Your task to perform on an android device: move an email to a new category in the gmail app Image 0: 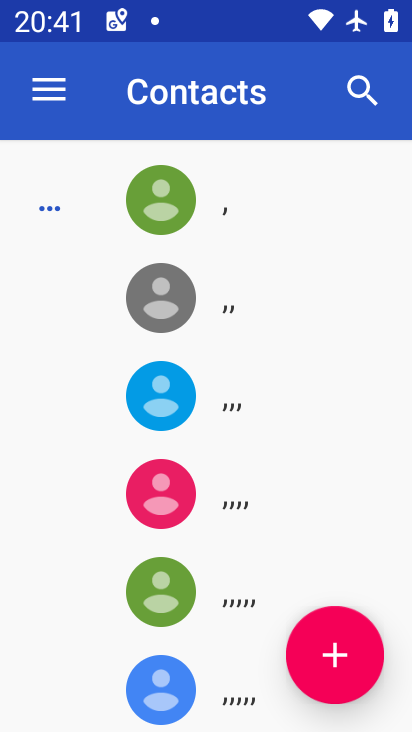
Step 0: press back button
Your task to perform on an android device: move an email to a new category in the gmail app Image 1: 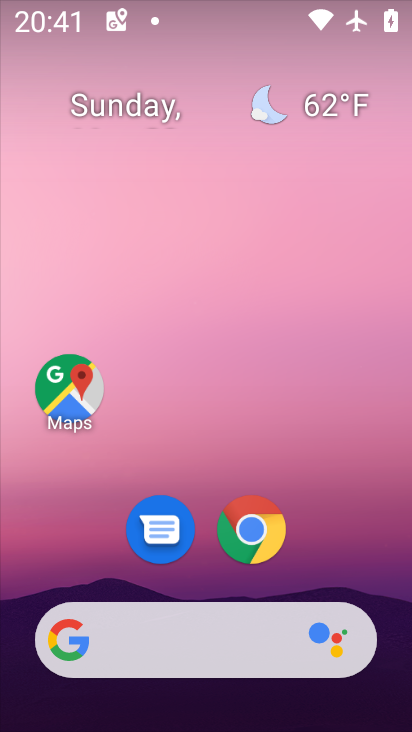
Step 1: drag from (254, 686) to (256, 229)
Your task to perform on an android device: move an email to a new category in the gmail app Image 2: 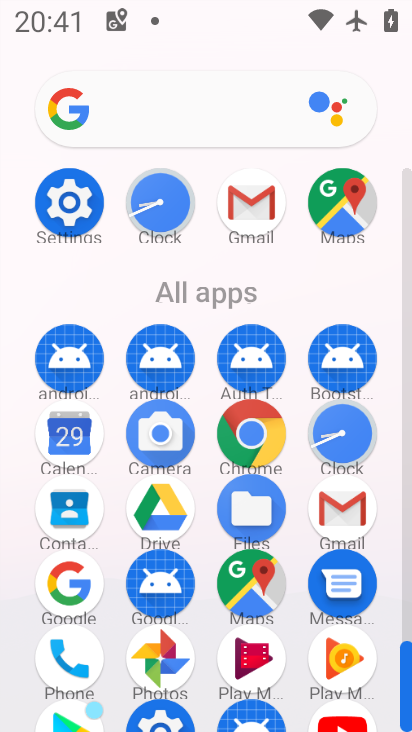
Step 2: click (345, 500)
Your task to perform on an android device: move an email to a new category in the gmail app Image 3: 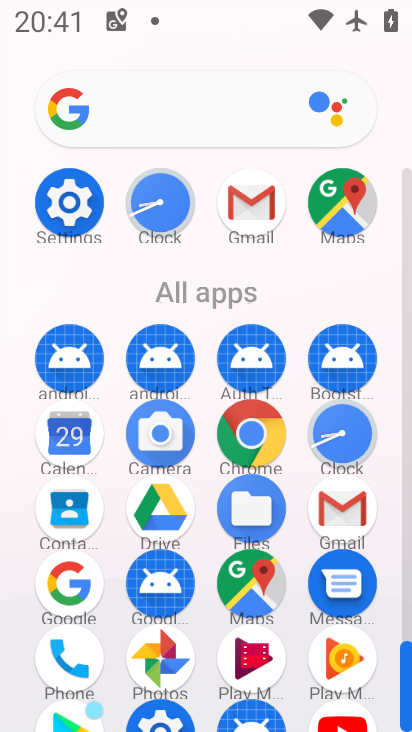
Step 3: click (345, 500)
Your task to perform on an android device: move an email to a new category in the gmail app Image 4: 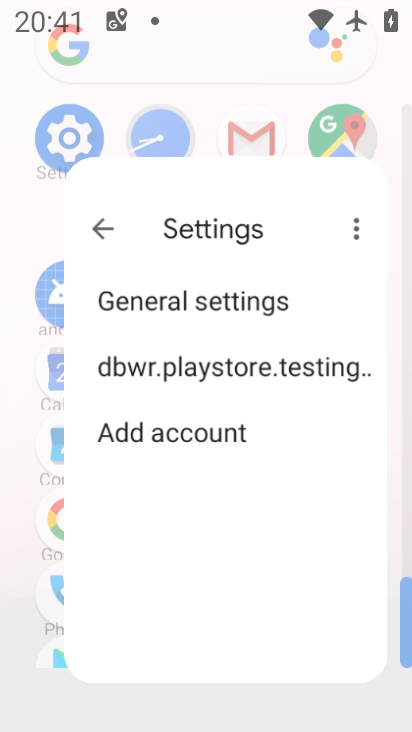
Step 4: click (340, 512)
Your task to perform on an android device: move an email to a new category in the gmail app Image 5: 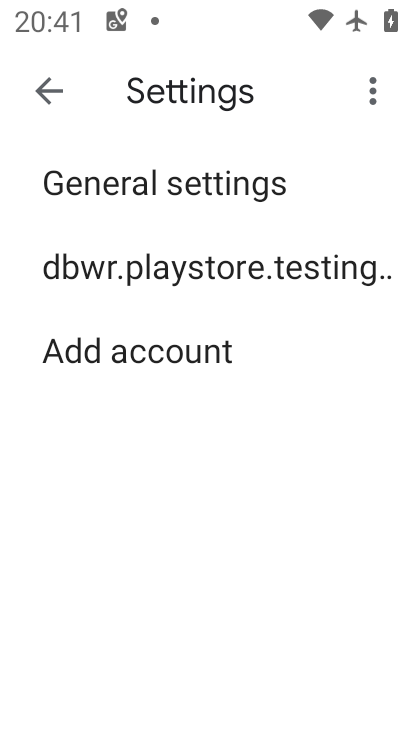
Step 5: click (194, 270)
Your task to perform on an android device: move an email to a new category in the gmail app Image 6: 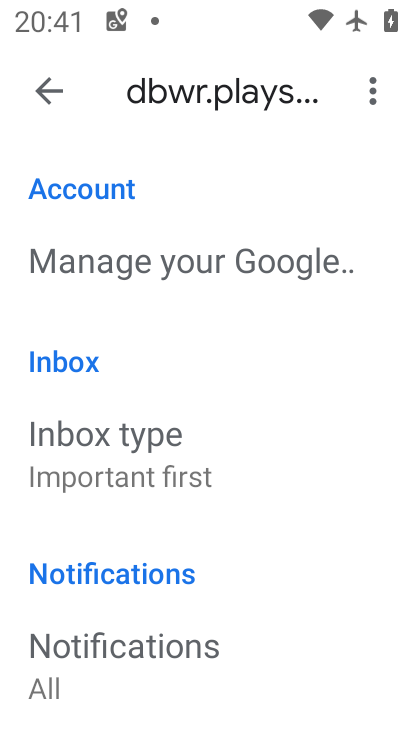
Step 6: click (36, 85)
Your task to perform on an android device: move an email to a new category in the gmail app Image 7: 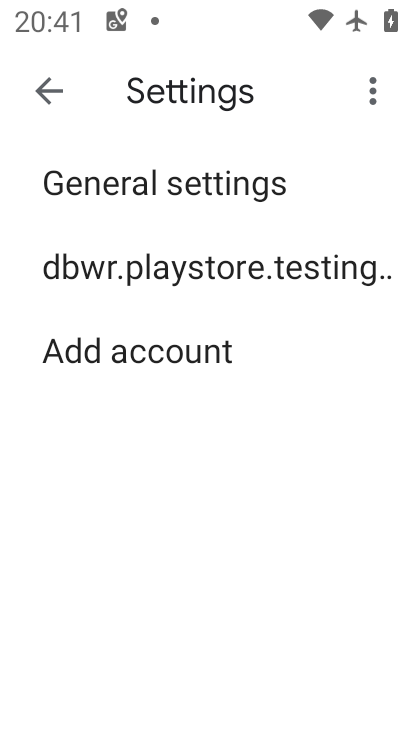
Step 7: click (46, 92)
Your task to perform on an android device: move an email to a new category in the gmail app Image 8: 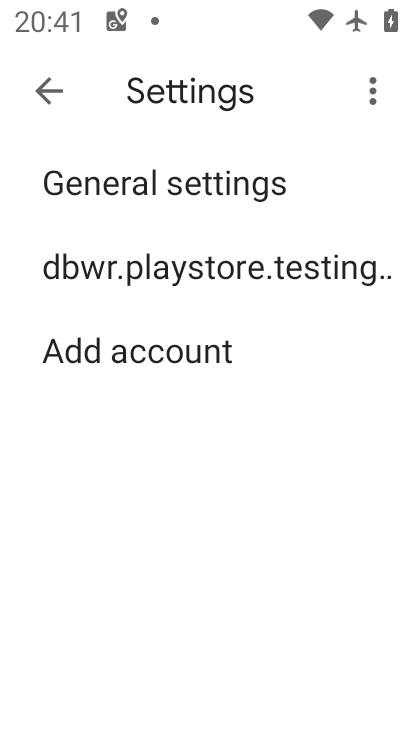
Step 8: click (35, 92)
Your task to perform on an android device: move an email to a new category in the gmail app Image 9: 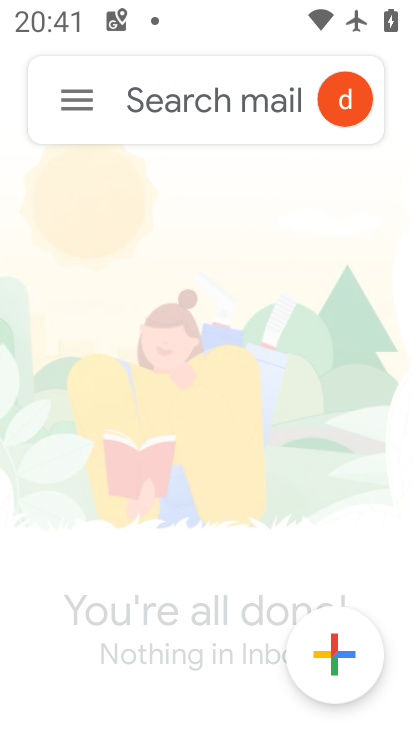
Step 9: click (88, 101)
Your task to perform on an android device: move an email to a new category in the gmail app Image 10: 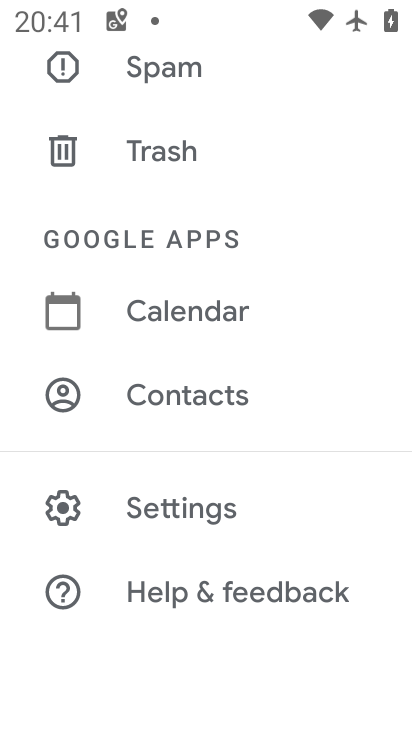
Step 10: drag from (150, 130) to (200, 538)
Your task to perform on an android device: move an email to a new category in the gmail app Image 11: 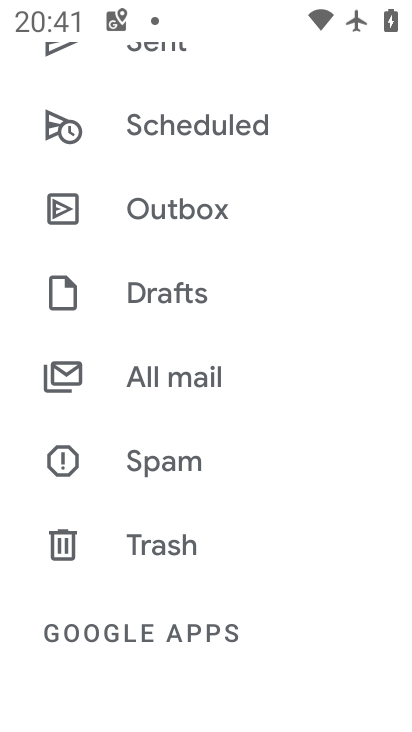
Step 11: drag from (190, 249) to (193, 582)
Your task to perform on an android device: move an email to a new category in the gmail app Image 12: 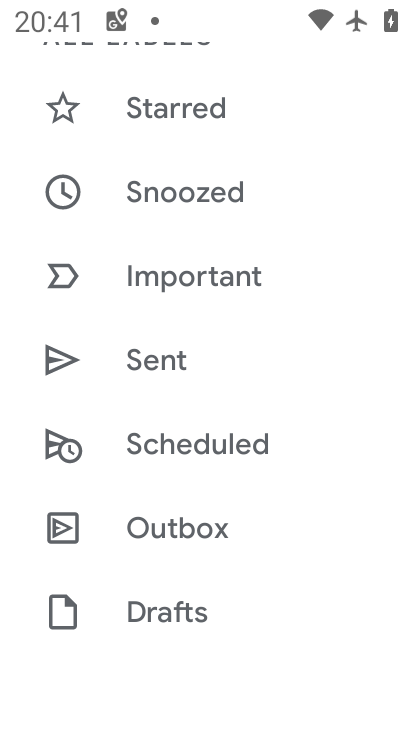
Step 12: drag from (180, 161) to (227, 655)
Your task to perform on an android device: move an email to a new category in the gmail app Image 13: 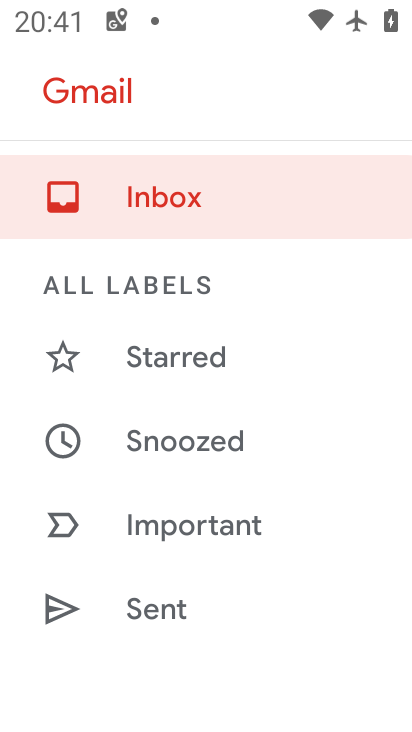
Step 13: drag from (190, 300) to (190, 534)
Your task to perform on an android device: move an email to a new category in the gmail app Image 14: 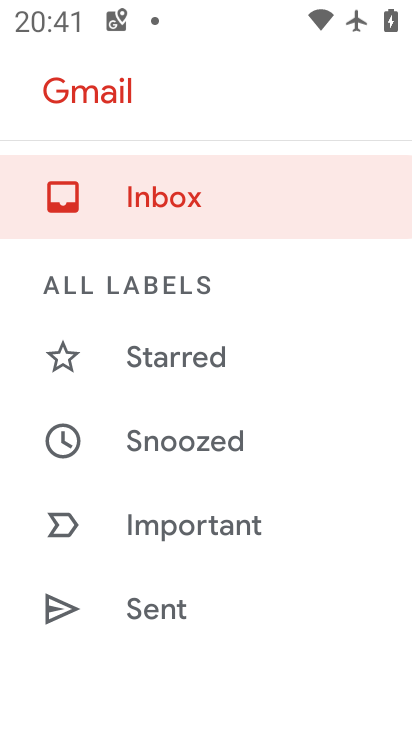
Step 14: drag from (141, 359) to (124, 218)
Your task to perform on an android device: move an email to a new category in the gmail app Image 15: 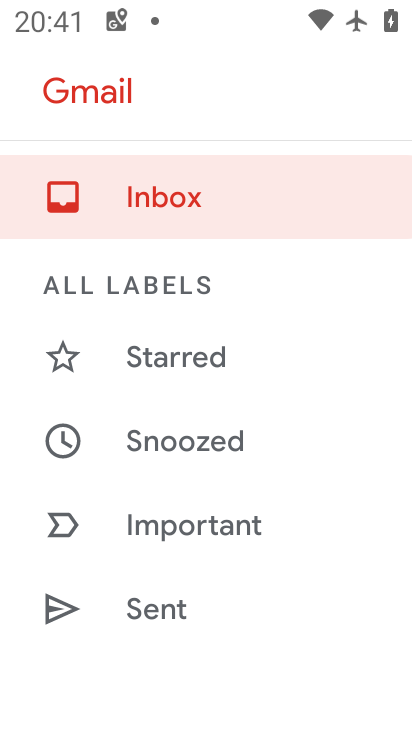
Step 15: drag from (167, 486) to (136, 215)
Your task to perform on an android device: move an email to a new category in the gmail app Image 16: 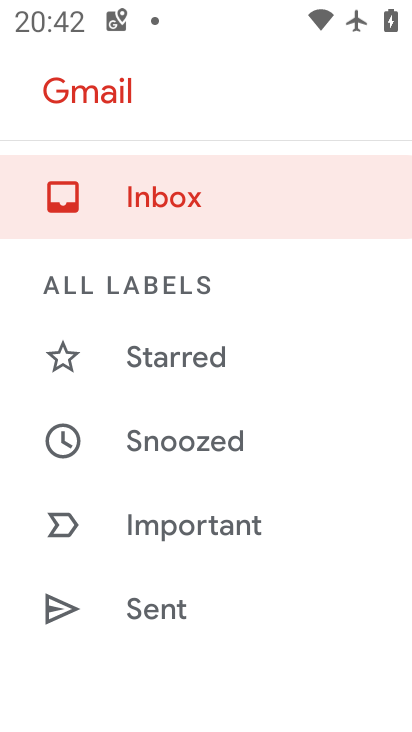
Step 16: drag from (167, 388) to (167, 166)
Your task to perform on an android device: move an email to a new category in the gmail app Image 17: 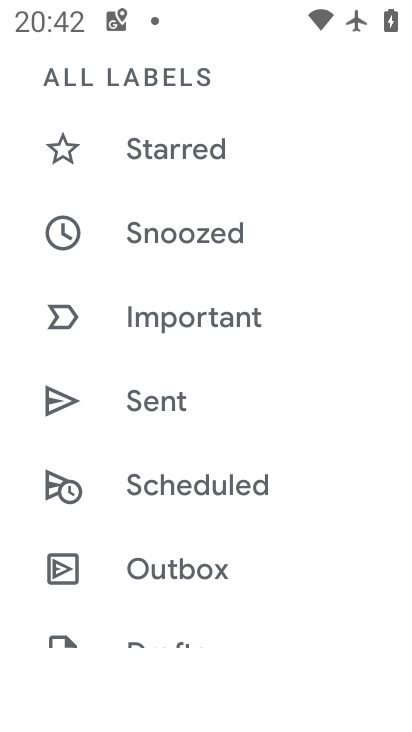
Step 17: drag from (167, 371) to (167, 160)
Your task to perform on an android device: move an email to a new category in the gmail app Image 18: 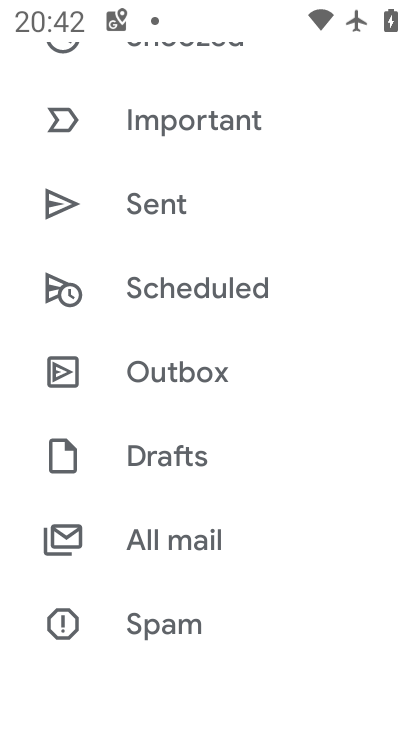
Step 18: drag from (183, 543) to (181, 242)
Your task to perform on an android device: move an email to a new category in the gmail app Image 19: 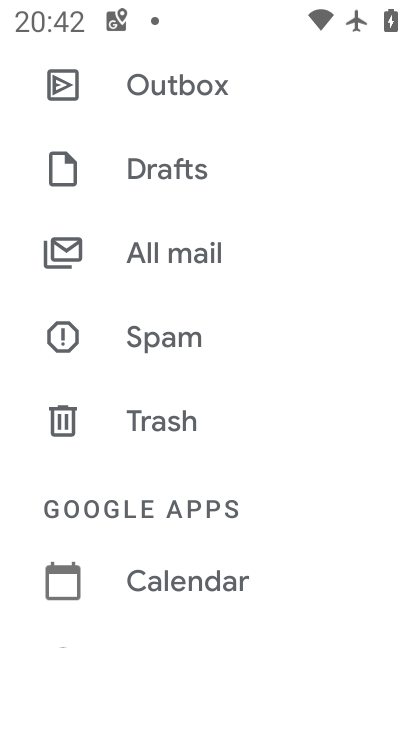
Step 19: click (173, 250)
Your task to perform on an android device: move an email to a new category in the gmail app Image 20: 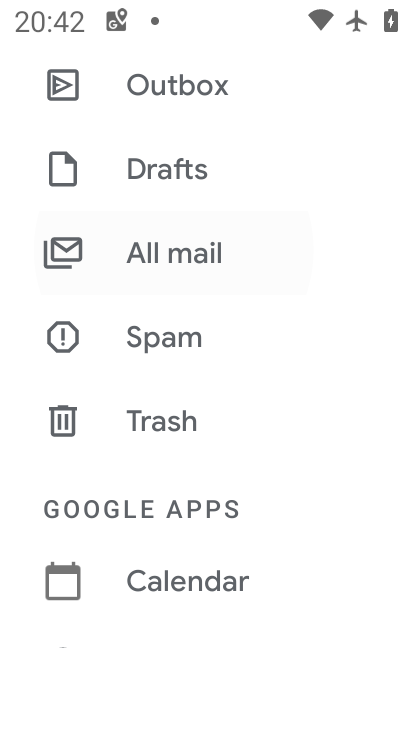
Step 20: click (173, 250)
Your task to perform on an android device: move an email to a new category in the gmail app Image 21: 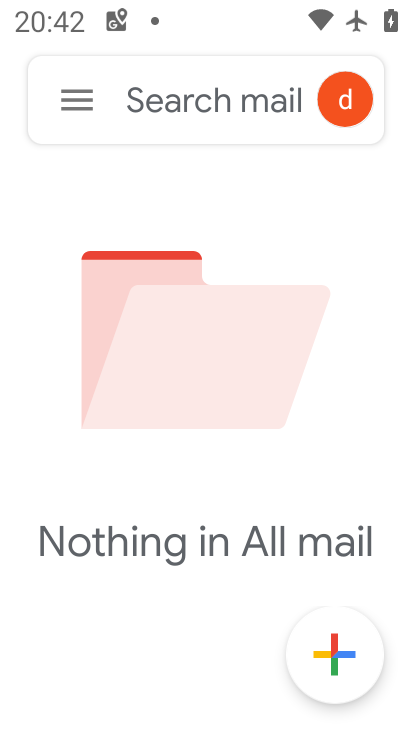
Step 21: task complete